Your task to perform on an android device: snooze an email in the gmail app Image 0: 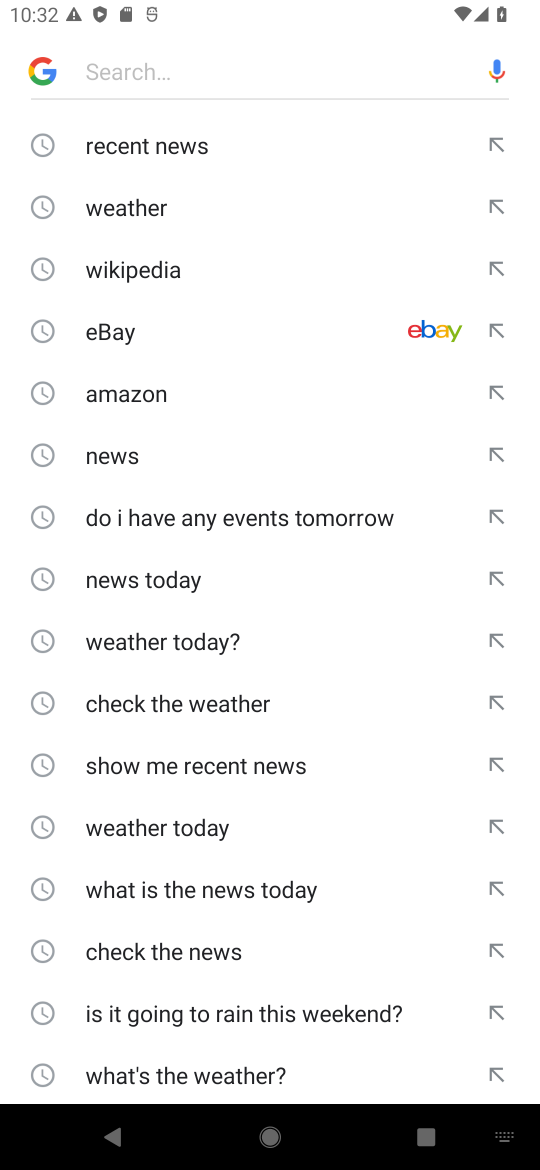
Step 0: press home button
Your task to perform on an android device: snooze an email in the gmail app Image 1: 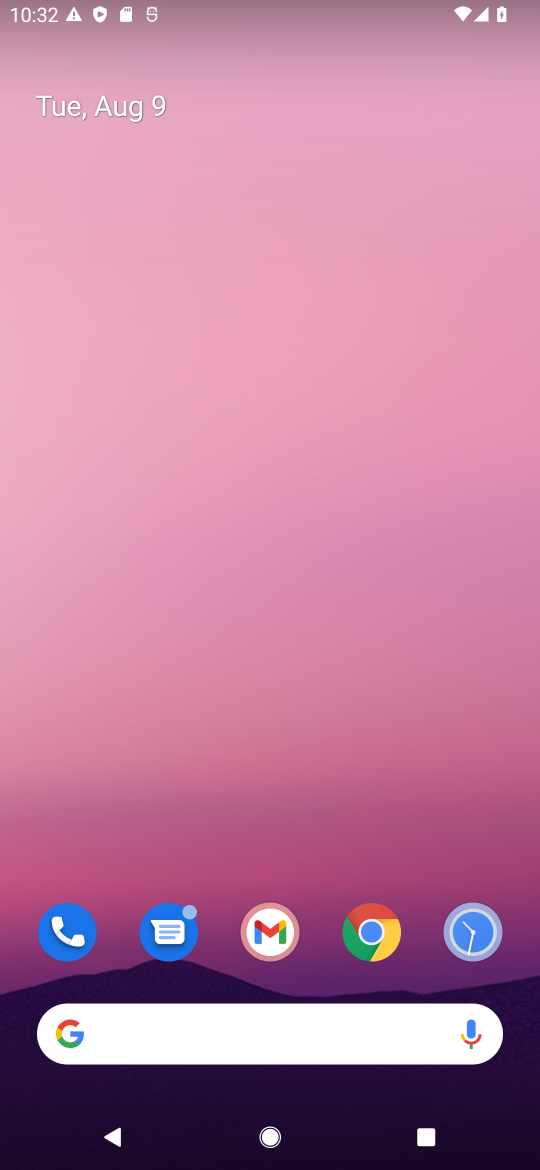
Step 1: click (255, 958)
Your task to perform on an android device: snooze an email in the gmail app Image 2: 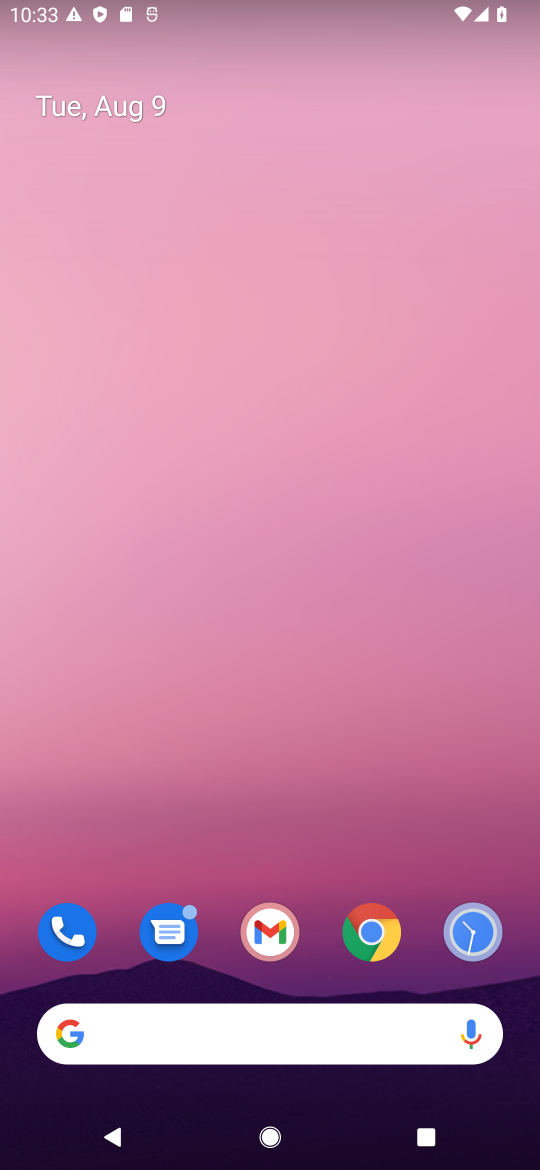
Step 2: click (271, 925)
Your task to perform on an android device: snooze an email in the gmail app Image 3: 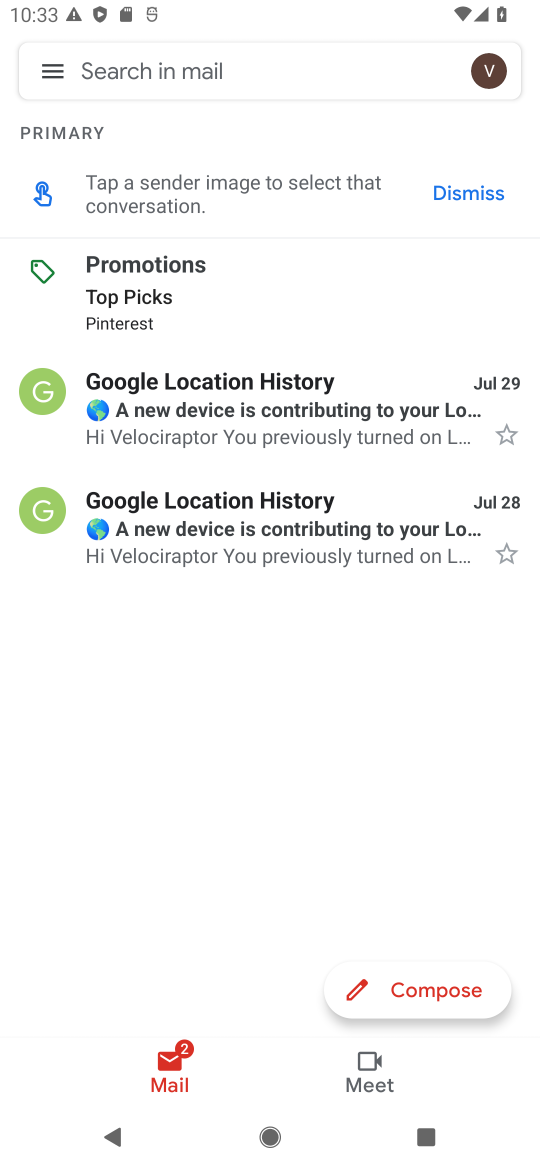
Step 3: click (67, 411)
Your task to perform on an android device: snooze an email in the gmail app Image 4: 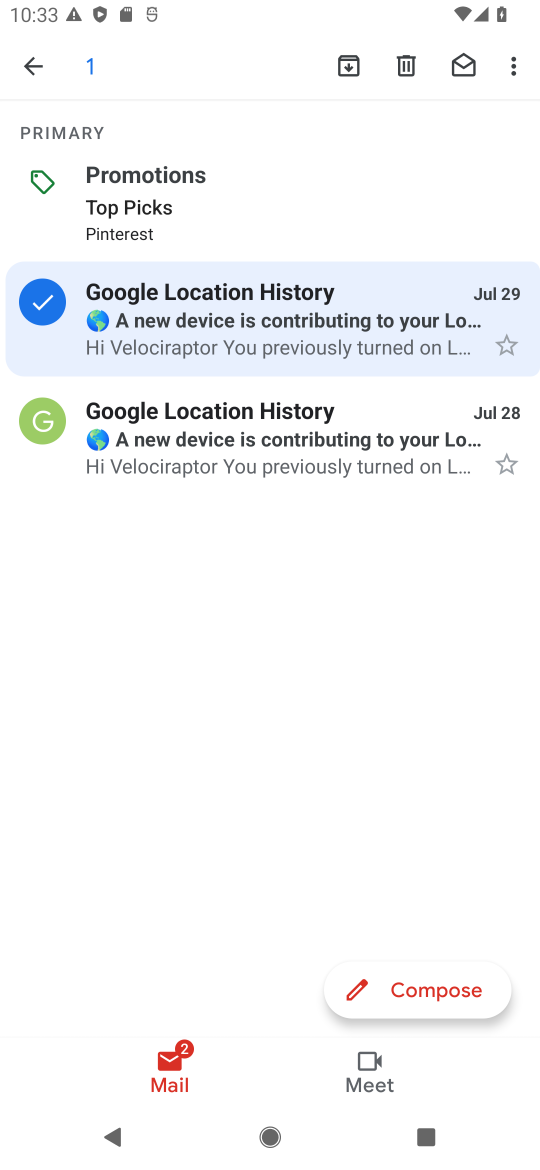
Step 4: click (515, 66)
Your task to perform on an android device: snooze an email in the gmail app Image 5: 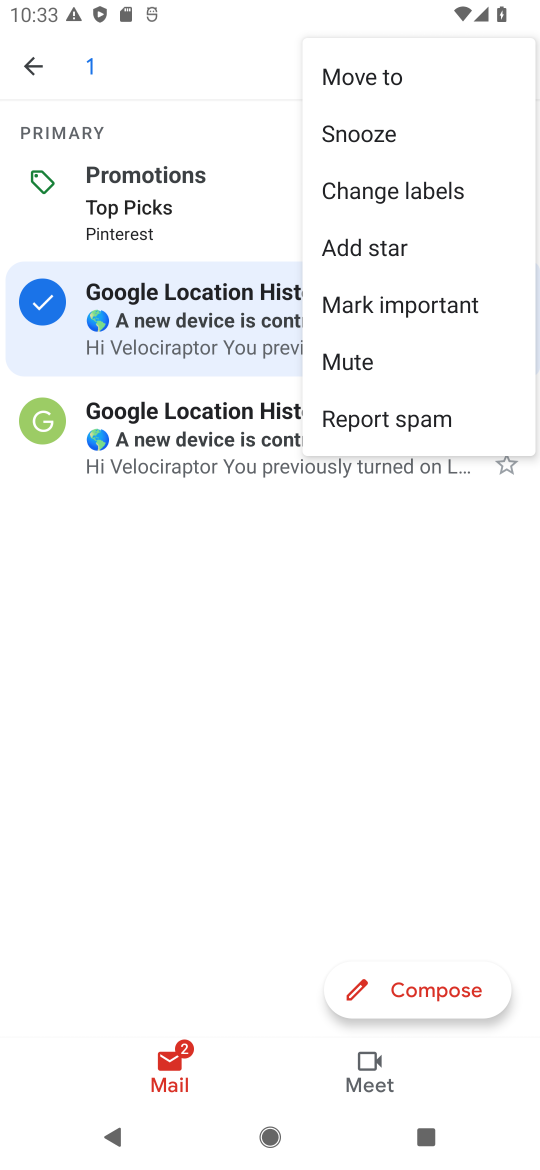
Step 5: click (359, 138)
Your task to perform on an android device: snooze an email in the gmail app Image 6: 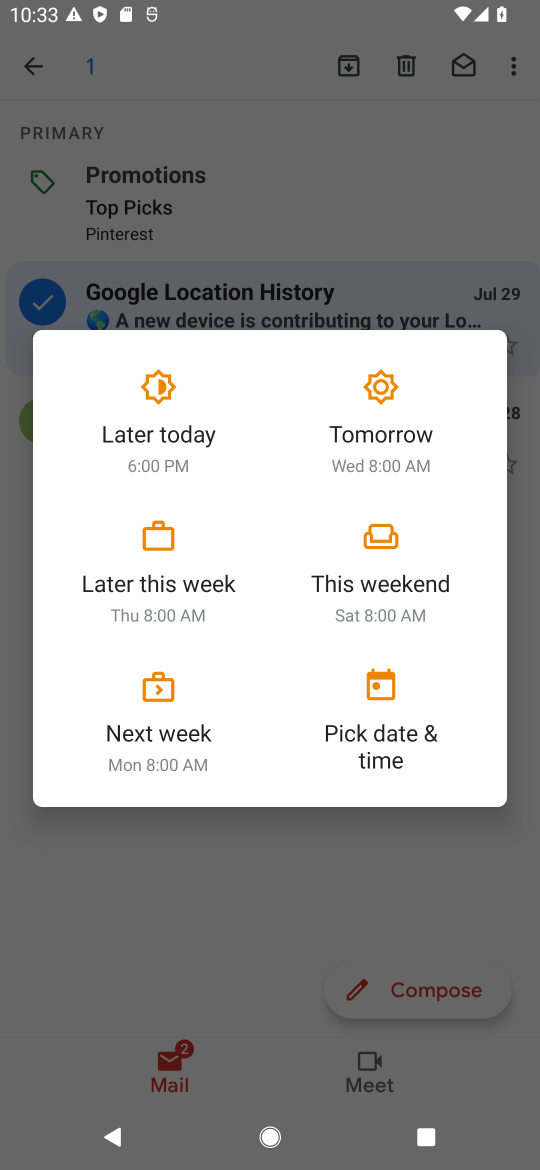
Step 6: click (168, 416)
Your task to perform on an android device: snooze an email in the gmail app Image 7: 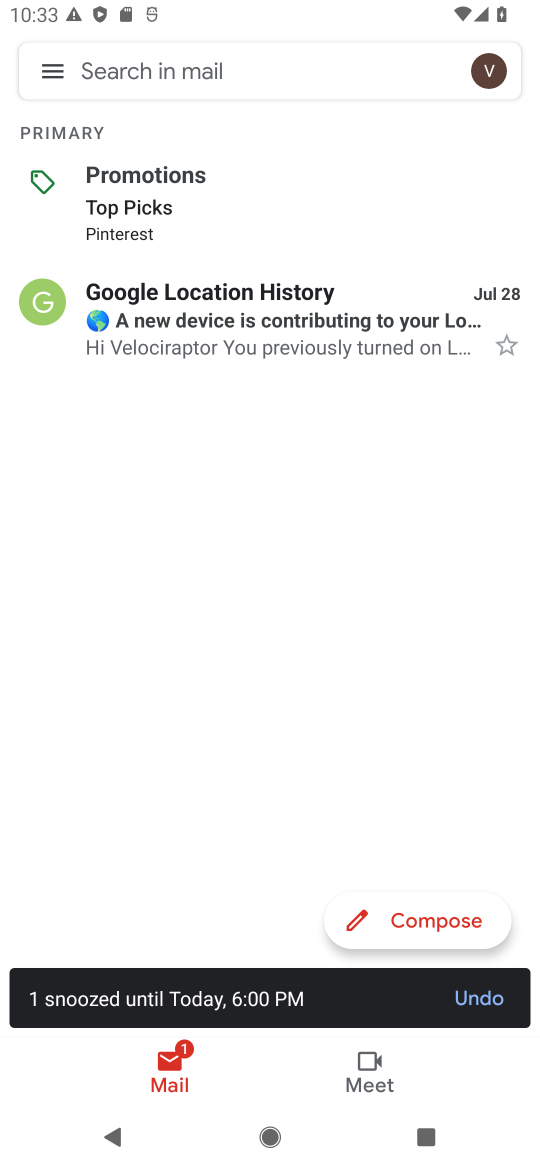
Step 7: task complete